Your task to perform on an android device: toggle airplane mode Image 0: 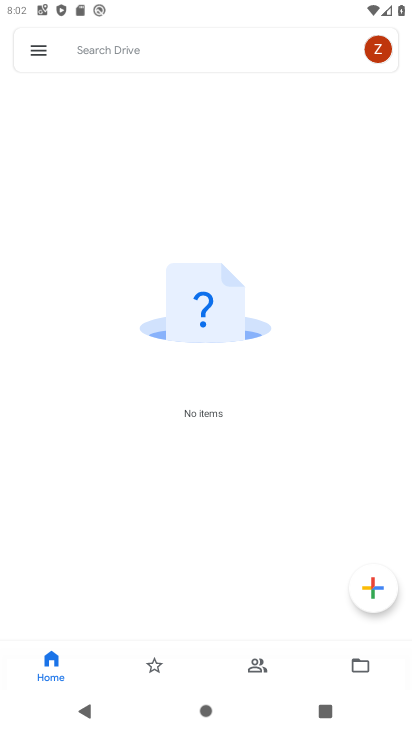
Step 0: press home button
Your task to perform on an android device: toggle airplane mode Image 1: 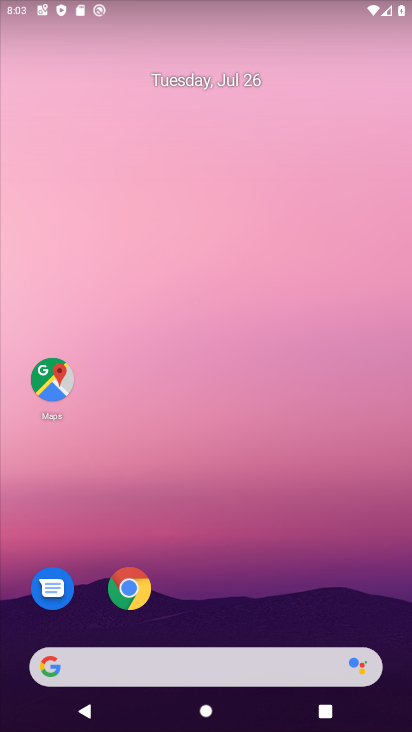
Step 1: task complete